Your task to perform on an android device: open chrome and create a bookmark for the current page Image 0: 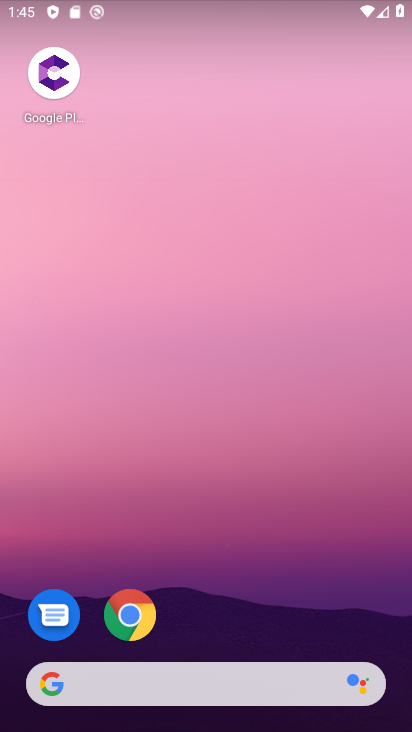
Step 0: click (135, 607)
Your task to perform on an android device: open chrome and create a bookmark for the current page Image 1: 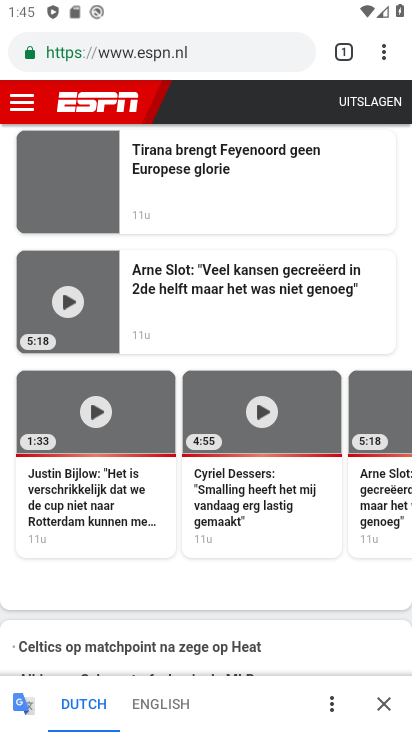
Step 1: click (388, 46)
Your task to perform on an android device: open chrome and create a bookmark for the current page Image 2: 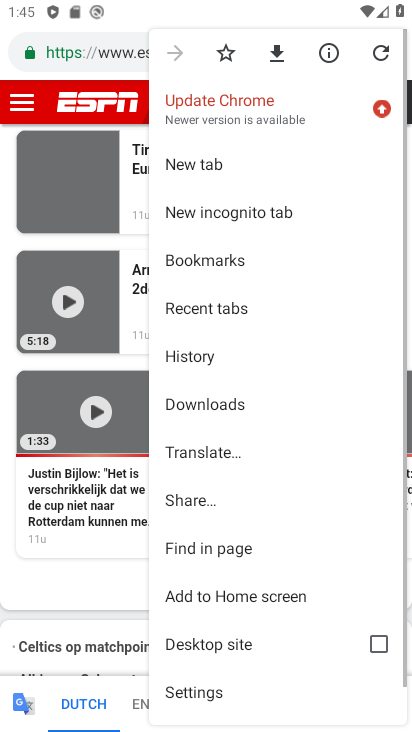
Step 2: click (223, 53)
Your task to perform on an android device: open chrome and create a bookmark for the current page Image 3: 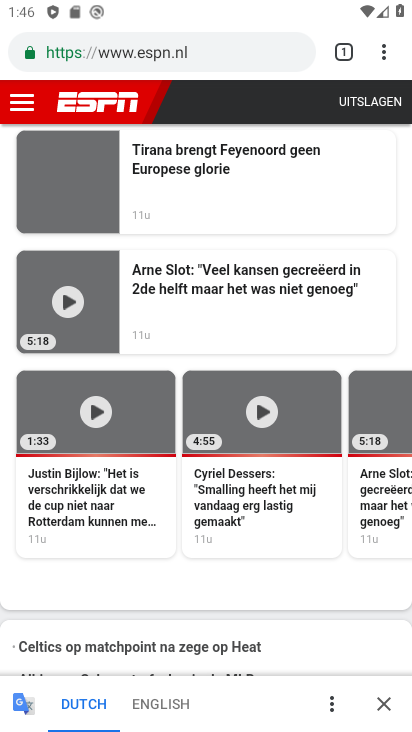
Step 3: task complete